Your task to perform on an android device: add a contact in the contacts app Image 0: 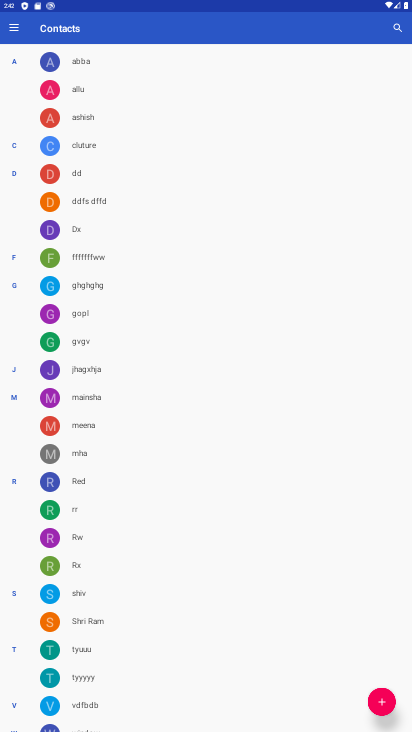
Step 0: press back button
Your task to perform on an android device: add a contact in the contacts app Image 1: 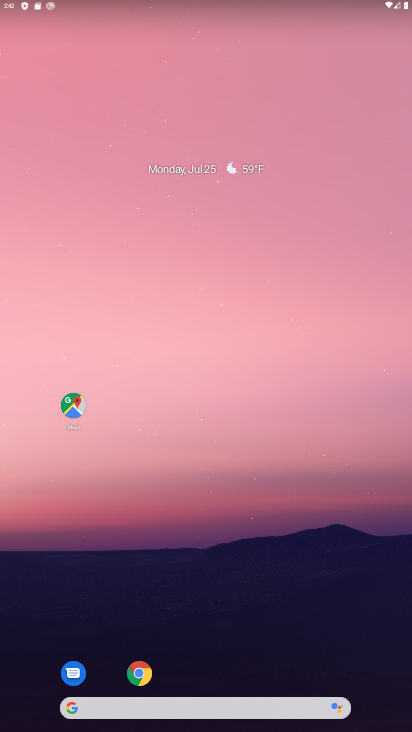
Step 1: drag from (203, 546) to (364, 4)
Your task to perform on an android device: add a contact in the contacts app Image 2: 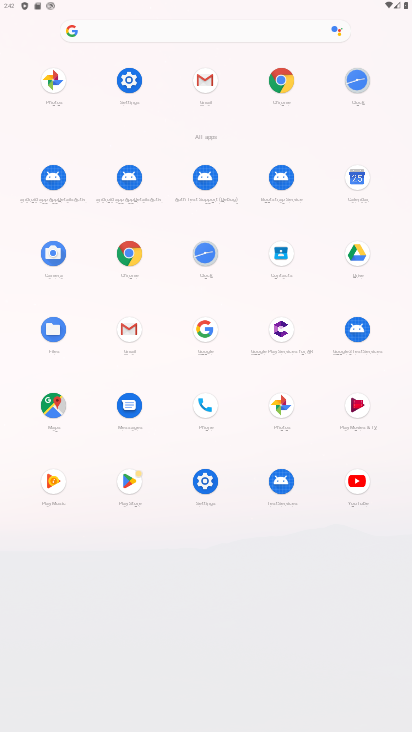
Step 2: click (281, 253)
Your task to perform on an android device: add a contact in the contacts app Image 3: 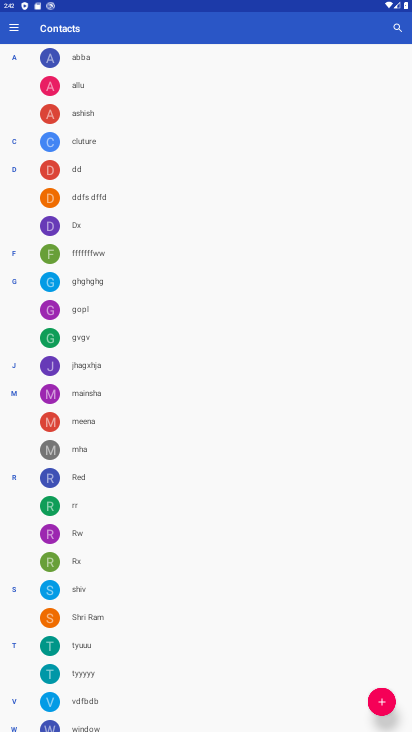
Step 3: click (375, 697)
Your task to perform on an android device: add a contact in the contacts app Image 4: 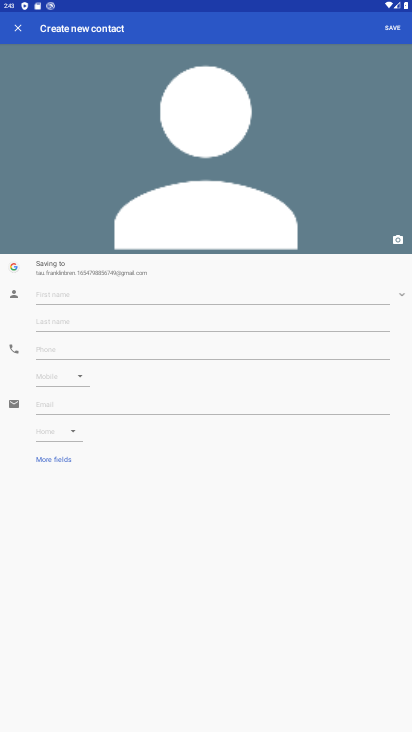
Step 4: click (99, 290)
Your task to perform on an android device: add a contact in the contacts app Image 5: 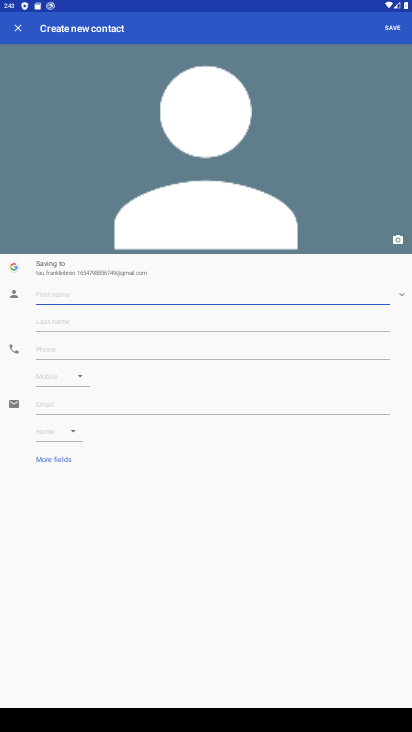
Step 5: type "rinu"
Your task to perform on an android device: add a contact in the contacts app Image 6: 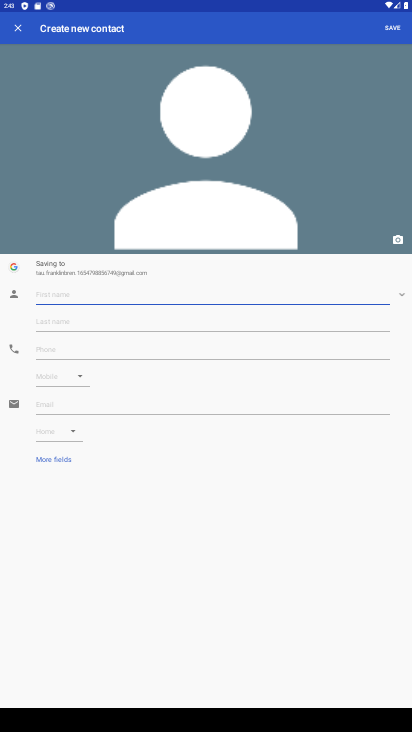
Step 6: click (77, 325)
Your task to perform on an android device: add a contact in the contacts app Image 7: 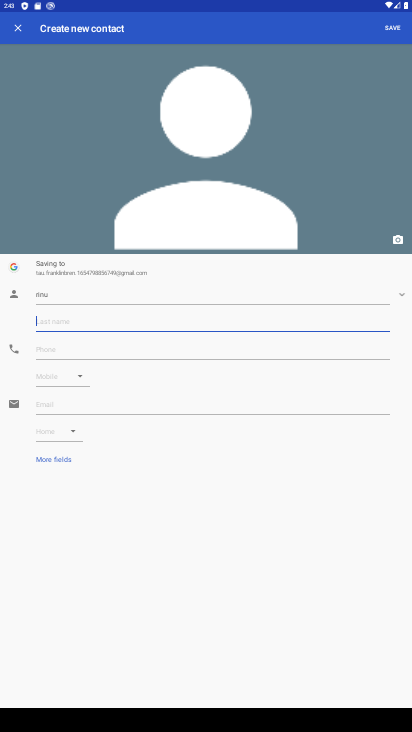
Step 7: click (65, 351)
Your task to perform on an android device: add a contact in the contacts app Image 8: 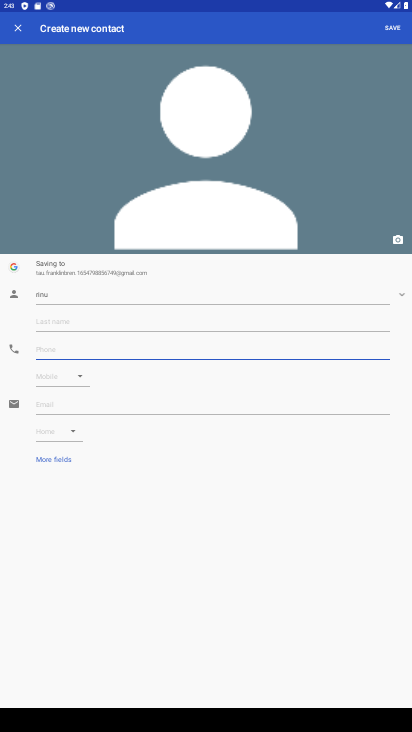
Step 8: type "8998898888"
Your task to perform on an android device: add a contact in the contacts app Image 9: 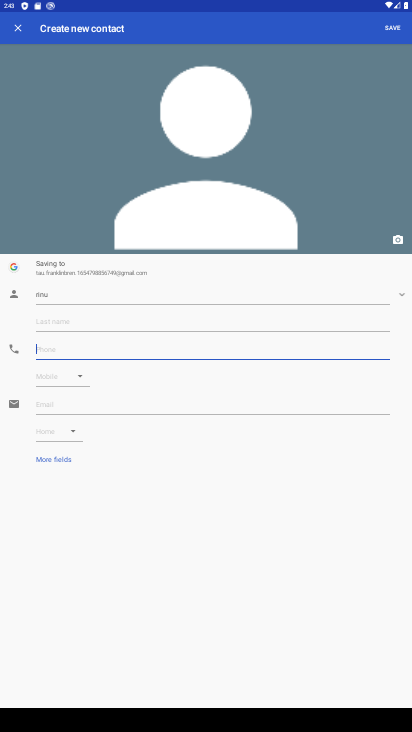
Step 9: click (393, 489)
Your task to perform on an android device: add a contact in the contacts app Image 10: 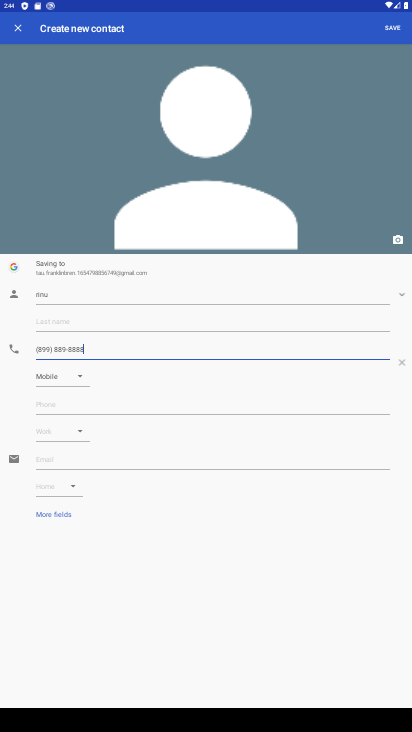
Step 10: click (392, 26)
Your task to perform on an android device: add a contact in the contacts app Image 11: 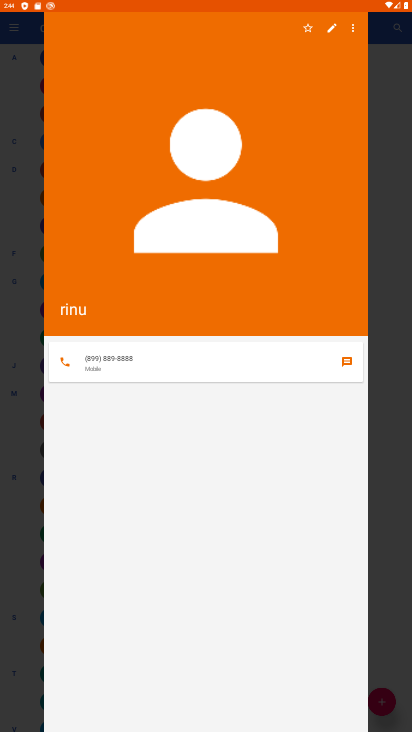
Step 11: task complete